Your task to perform on an android device: Open sound settings Image 0: 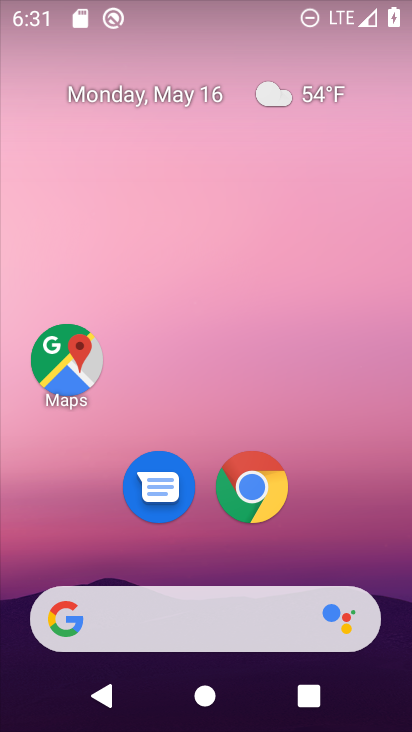
Step 0: drag from (247, 588) to (247, 205)
Your task to perform on an android device: Open sound settings Image 1: 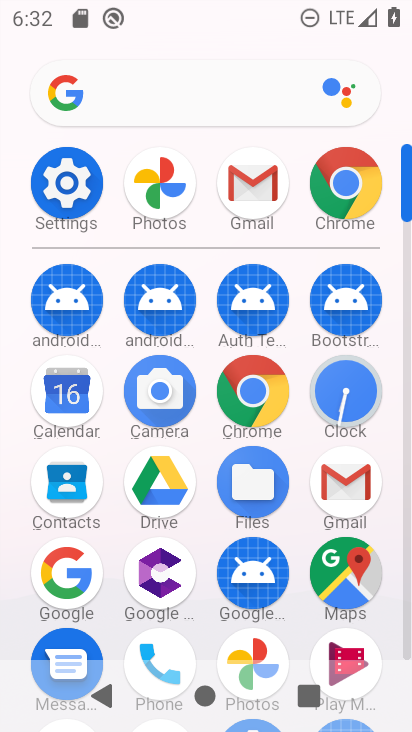
Step 1: click (32, 175)
Your task to perform on an android device: Open sound settings Image 2: 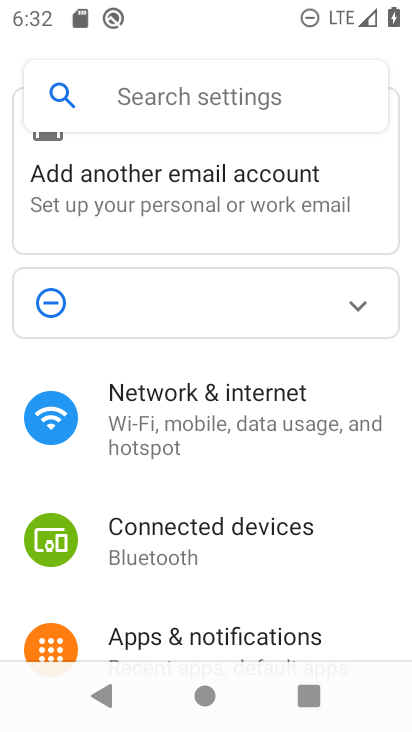
Step 2: drag from (186, 636) to (195, 341)
Your task to perform on an android device: Open sound settings Image 3: 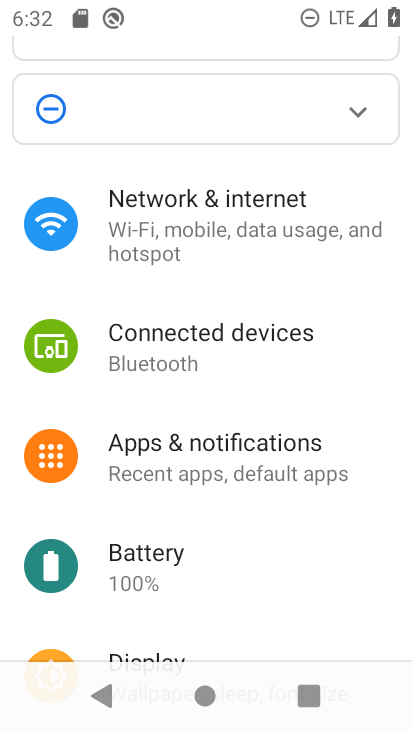
Step 3: drag from (146, 608) to (196, 214)
Your task to perform on an android device: Open sound settings Image 4: 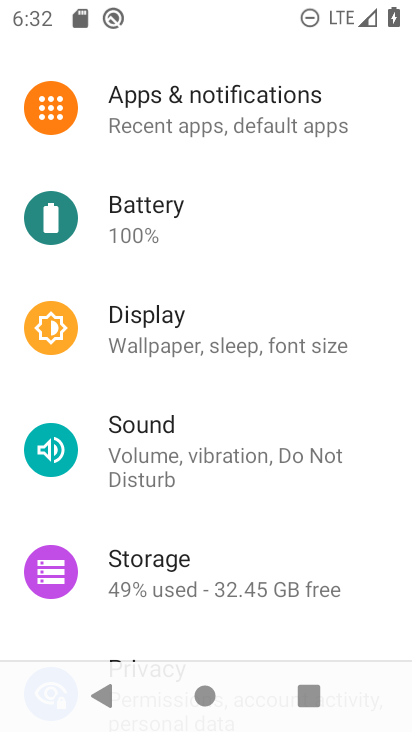
Step 4: drag from (186, 543) to (220, 301)
Your task to perform on an android device: Open sound settings Image 5: 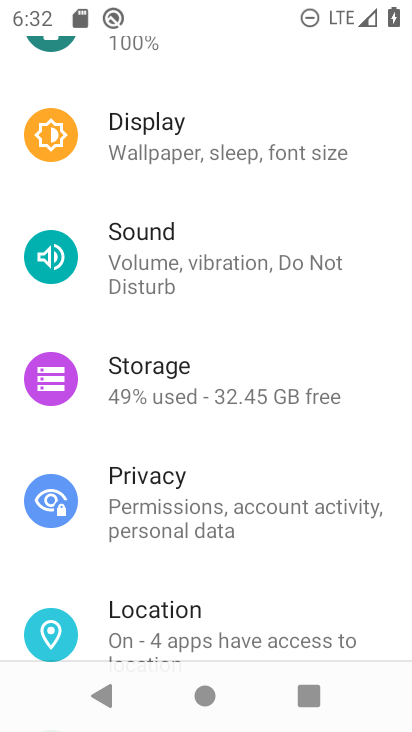
Step 5: click (196, 248)
Your task to perform on an android device: Open sound settings Image 6: 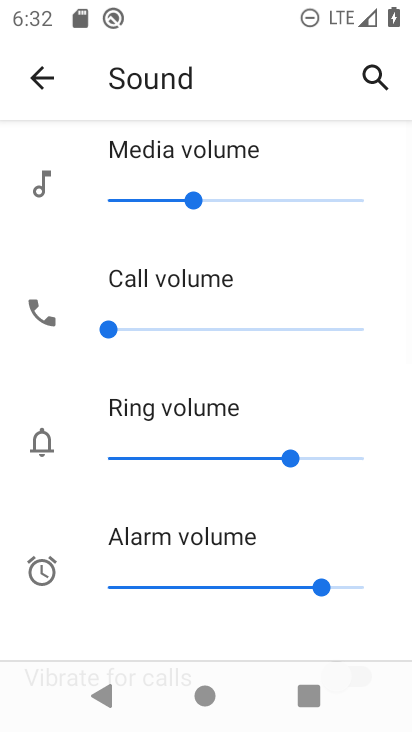
Step 6: task complete